Your task to perform on an android device: Open Google Chrome and click the shortcut for Amazon.com Image 0: 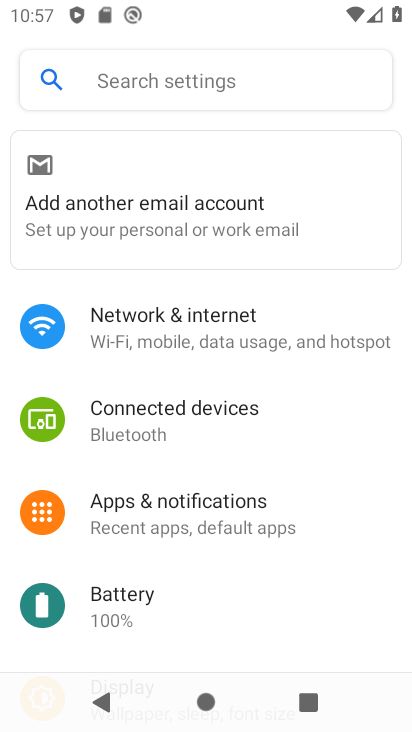
Step 0: press home button
Your task to perform on an android device: Open Google Chrome and click the shortcut for Amazon.com Image 1: 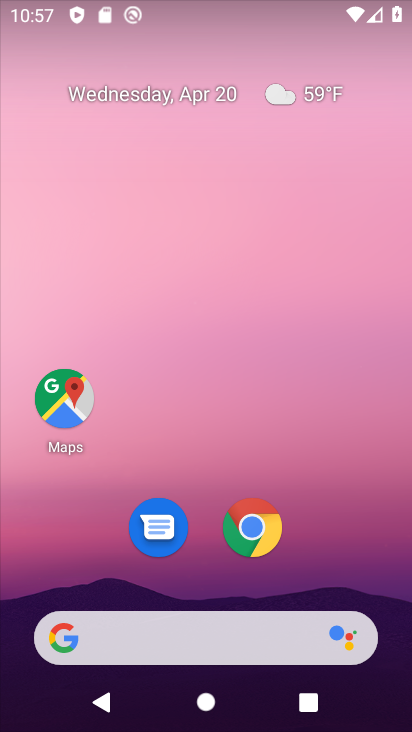
Step 1: drag from (365, 548) to (349, 115)
Your task to perform on an android device: Open Google Chrome and click the shortcut for Amazon.com Image 2: 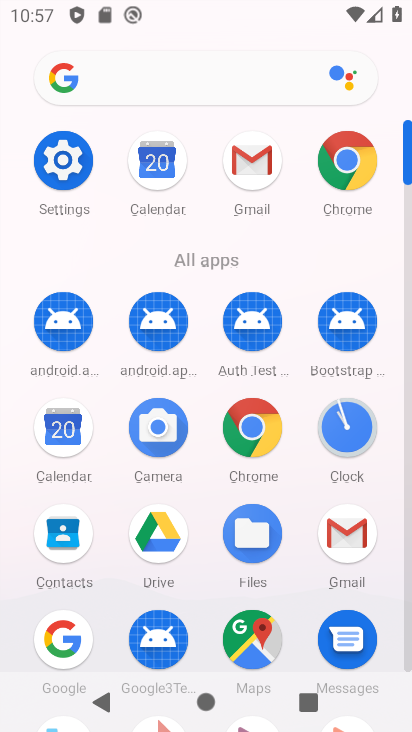
Step 2: click (250, 435)
Your task to perform on an android device: Open Google Chrome and click the shortcut for Amazon.com Image 3: 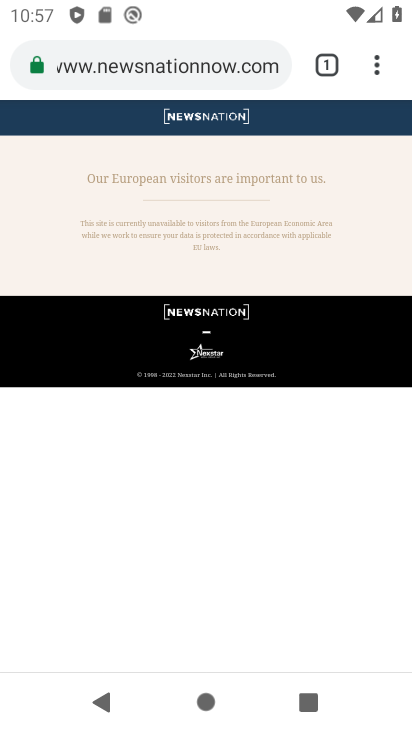
Step 3: click (325, 57)
Your task to perform on an android device: Open Google Chrome and click the shortcut for Amazon.com Image 4: 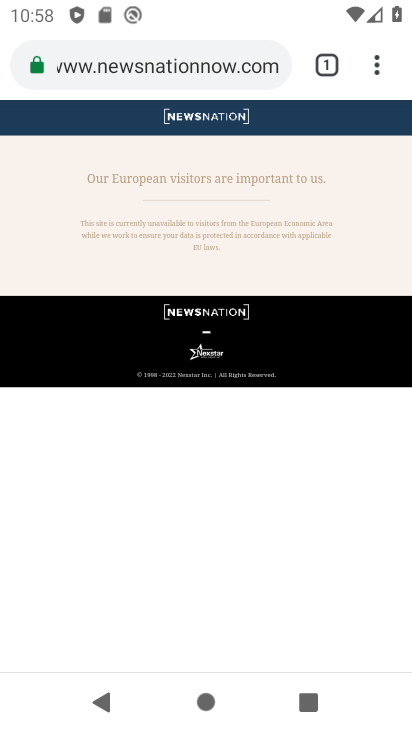
Step 4: click (334, 60)
Your task to perform on an android device: Open Google Chrome and click the shortcut for Amazon.com Image 5: 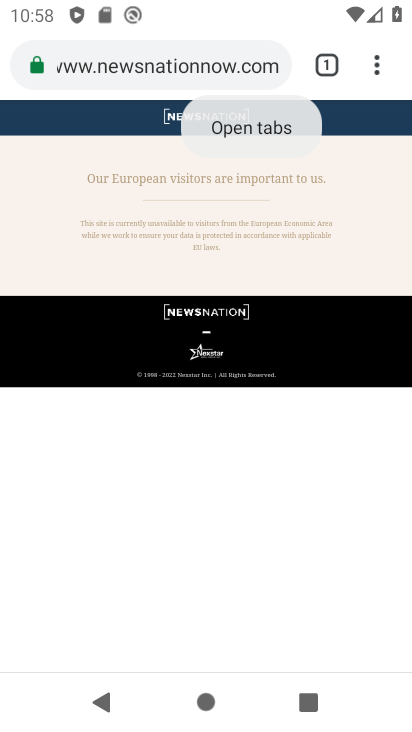
Step 5: click (327, 62)
Your task to perform on an android device: Open Google Chrome and click the shortcut for Amazon.com Image 6: 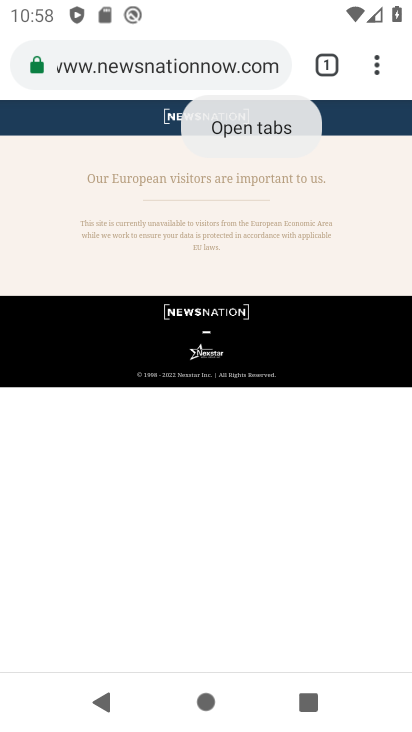
Step 6: click (327, 62)
Your task to perform on an android device: Open Google Chrome and click the shortcut for Amazon.com Image 7: 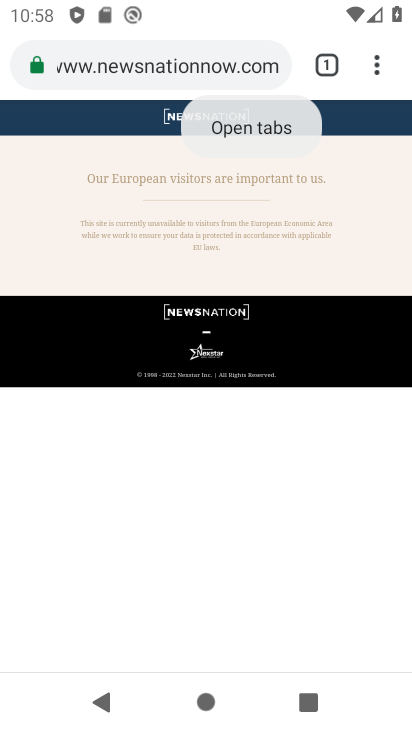
Step 7: click (320, 62)
Your task to perform on an android device: Open Google Chrome and click the shortcut for Amazon.com Image 8: 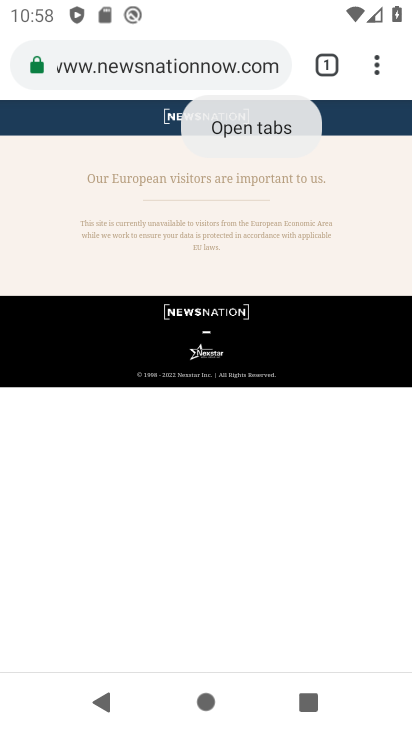
Step 8: click (334, 46)
Your task to perform on an android device: Open Google Chrome and click the shortcut for Amazon.com Image 9: 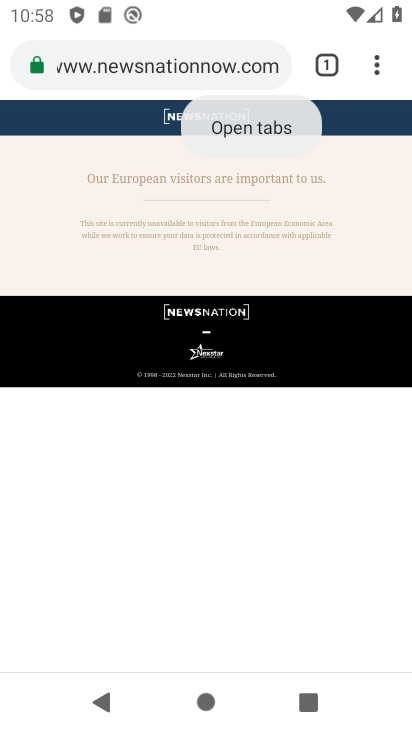
Step 9: click (330, 74)
Your task to perform on an android device: Open Google Chrome and click the shortcut for Amazon.com Image 10: 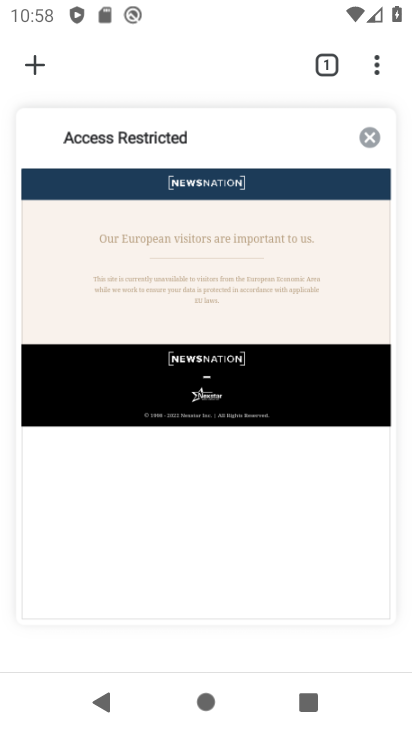
Step 10: click (36, 65)
Your task to perform on an android device: Open Google Chrome and click the shortcut for Amazon.com Image 11: 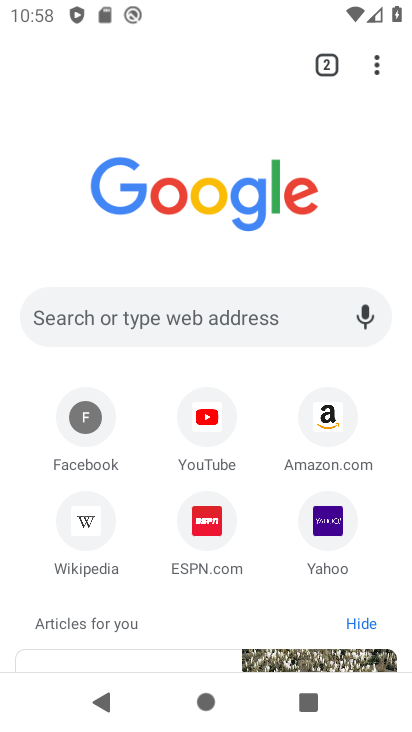
Step 11: click (323, 424)
Your task to perform on an android device: Open Google Chrome and click the shortcut for Amazon.com Image 12: 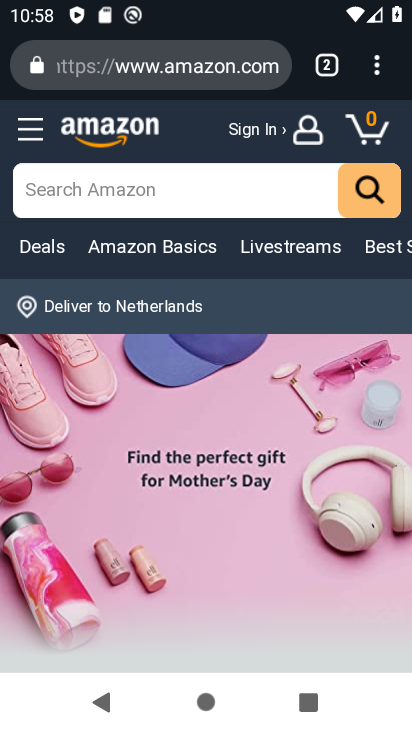
Step 12: task complete